Your task to perform on an android device: turn off location Image 0: 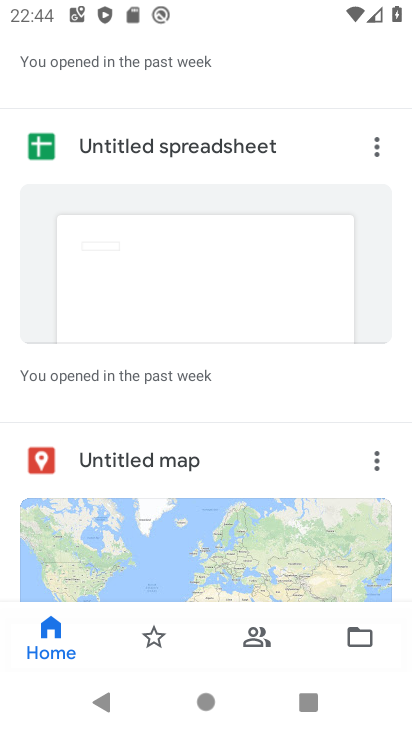
Step 0: press home button
Your task to perform on an android device: turn off location Image 1: 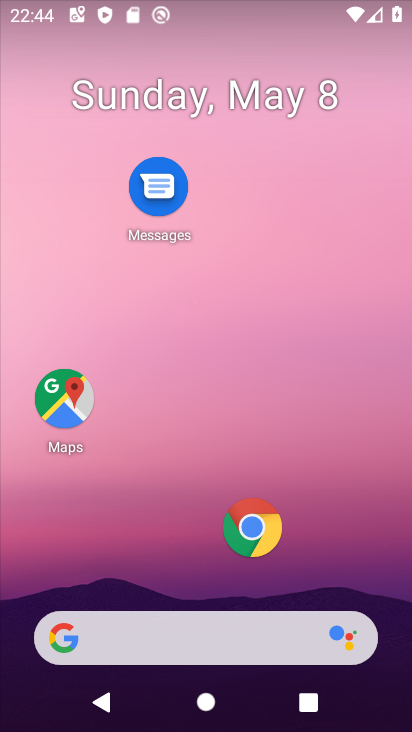
Step 1: drag from (171, 534) to (186, 8)
Your task to perform on an android device: turn off location Image 2: 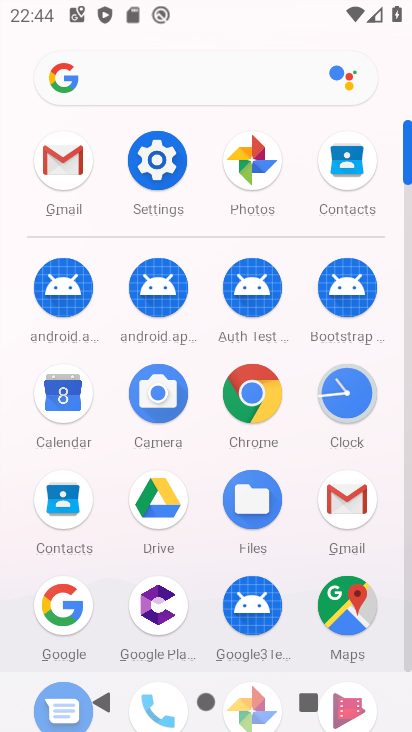
Step 2: click (161, 160)
Your task to perform on an android device: turn off location Image 3: 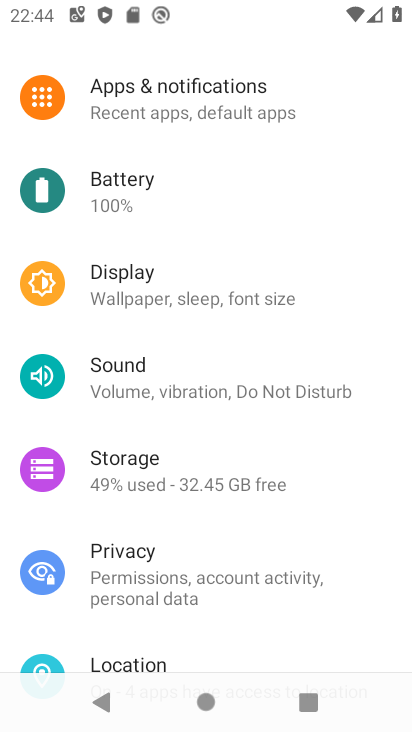
Step 3: click (153, 661)
Your task to perform on an android device: turn off location Image 4: 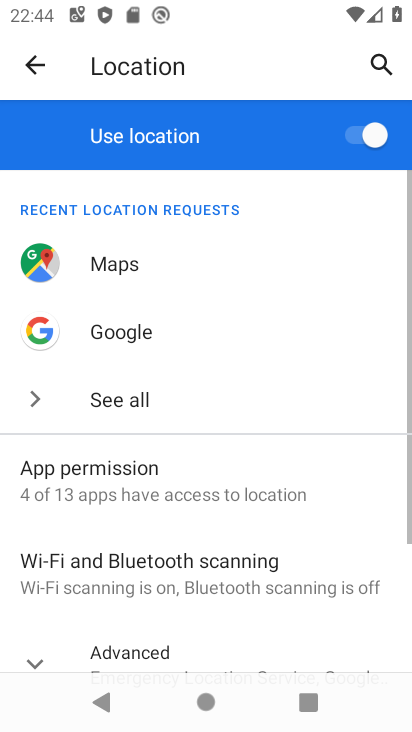
Step 4: click (368, 140)
Your task to perform on an android device: turn off location Image 5: 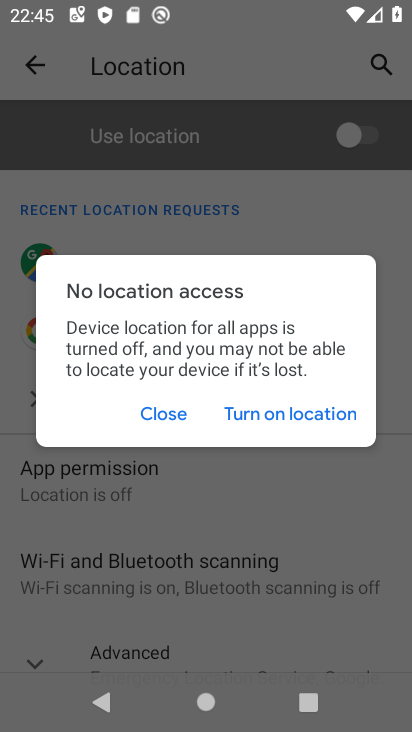
Step 5: click (159, 417)
Your task to perform on an android device: turn off location Image 6: 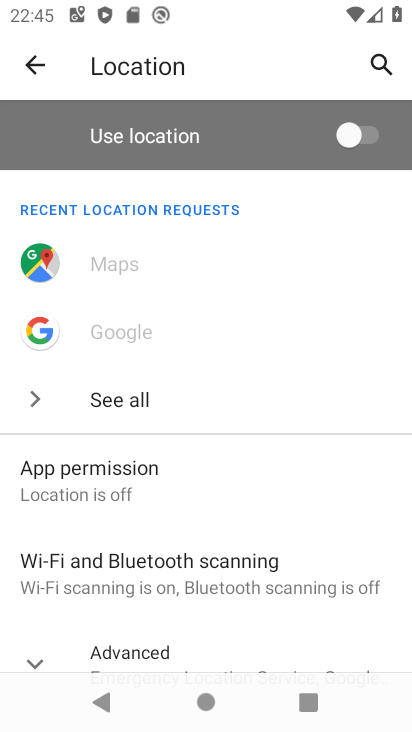
Step 6: task complete